Your task to perform on an android device: What's the latest news in space? Image 0: 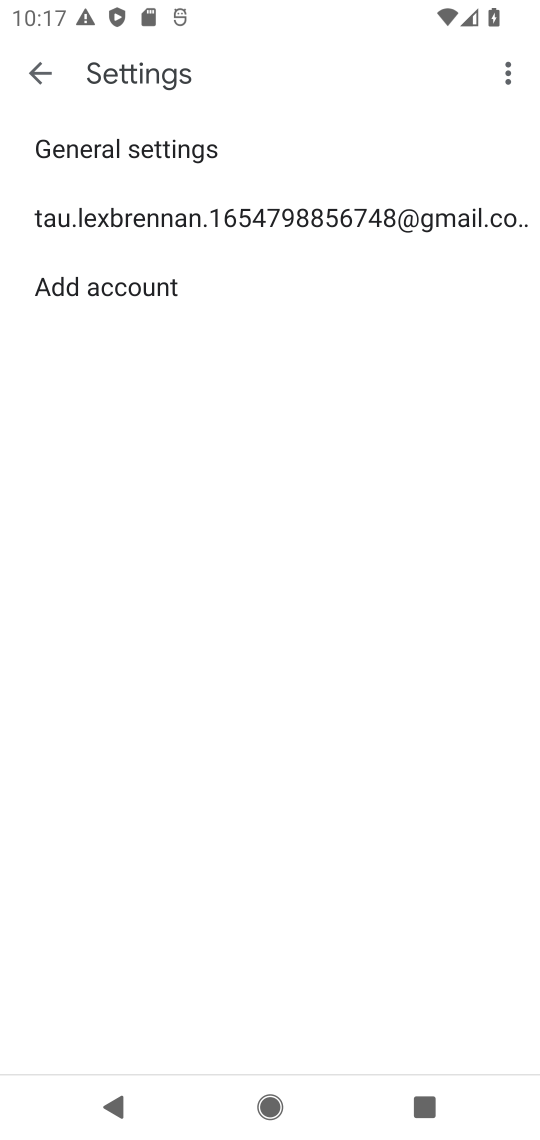
Step 0: press home button
Your task to perform on an android device: What's the latest news in space? Image 1: 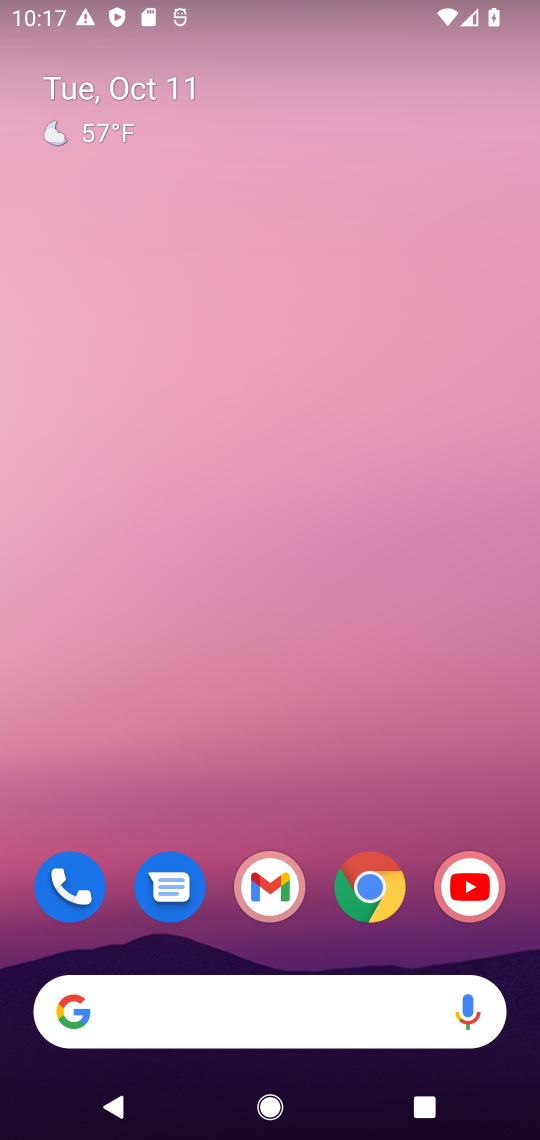
Step 1: click (235, 1016)
Your task to perform on an android device: What's the latest news in space? Image 2: 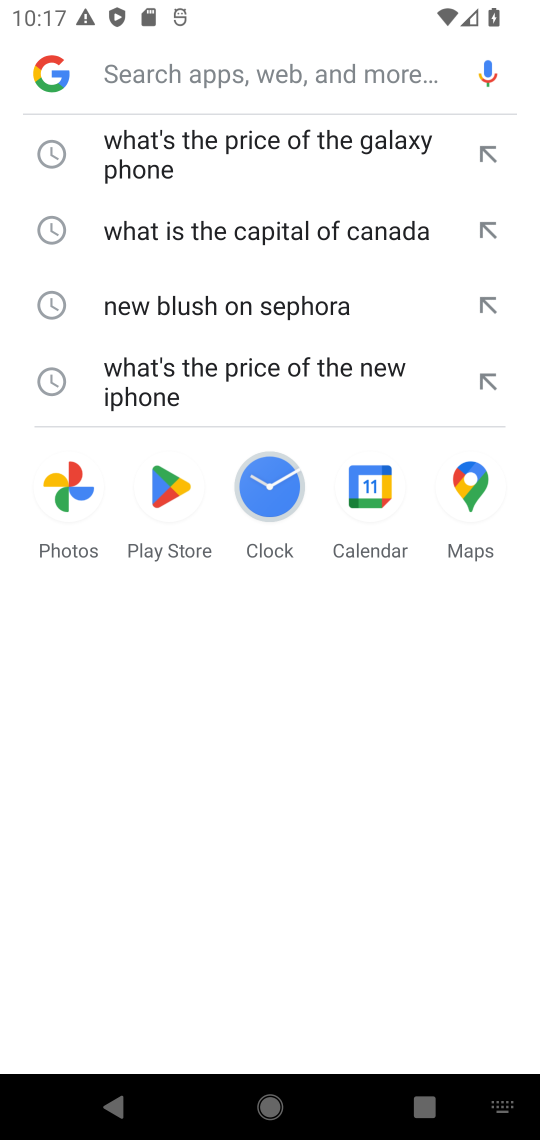
Step 2: type "What's the latest news in space"
Your task to perform on an android device: What's the latest news in space? Image 3: 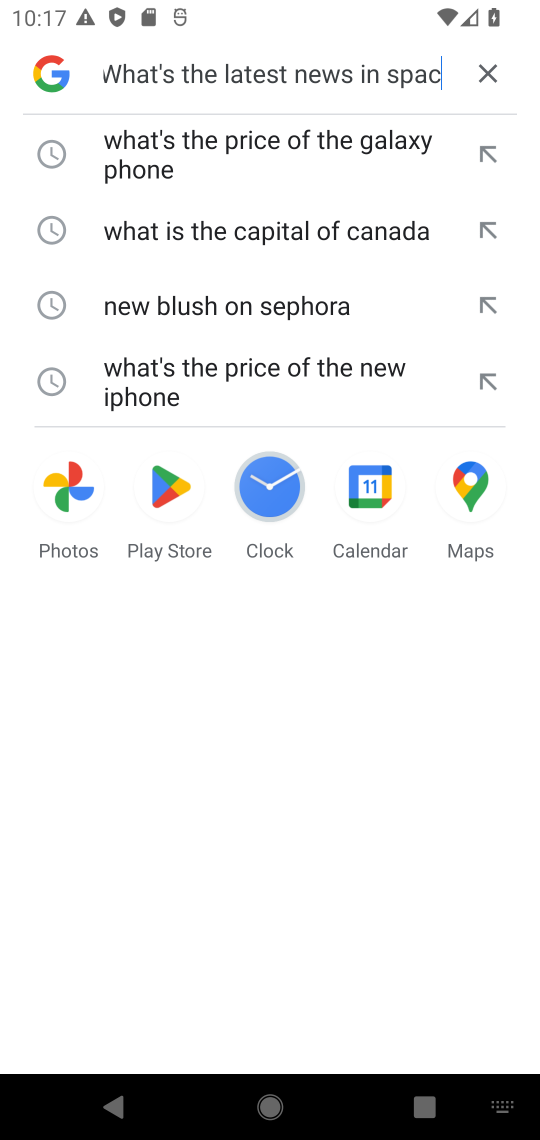
Step 3: press enter
Your task to perform on an android device: What's the latest news in space? Image 4: 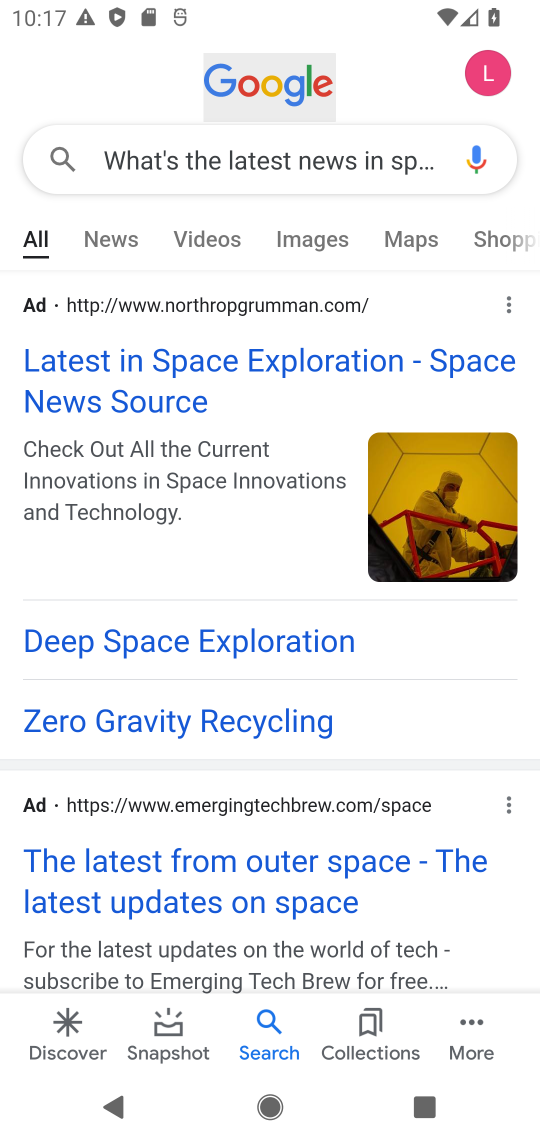
Step 4: click (239, 368)
Your task to perform on an android device: What's the latest news in space? Image 5: 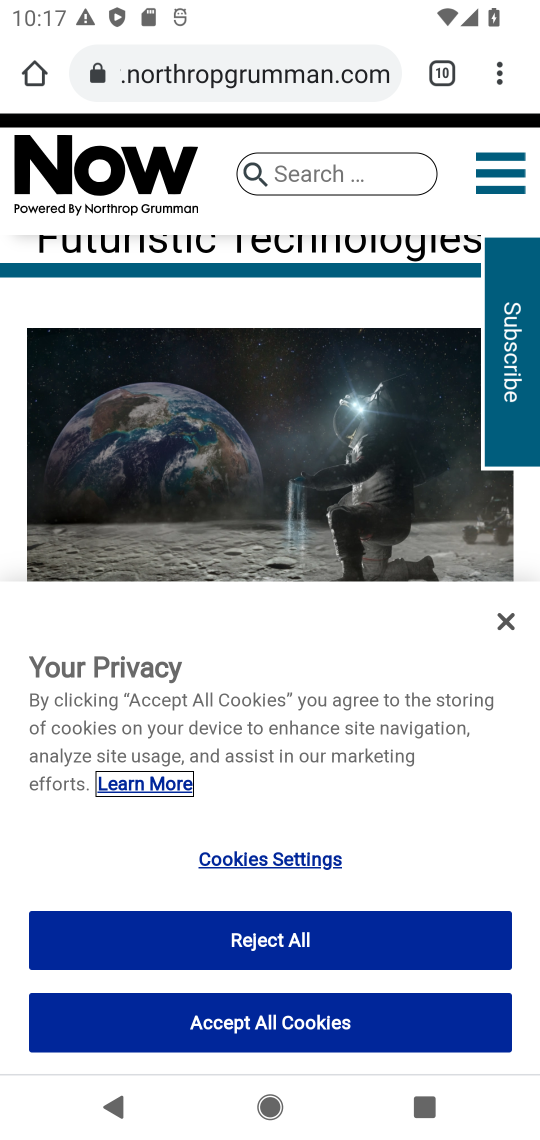
Step 5: click (267, 1025)
Your task to perform on an android device: What's the latest news in space? Image 6: 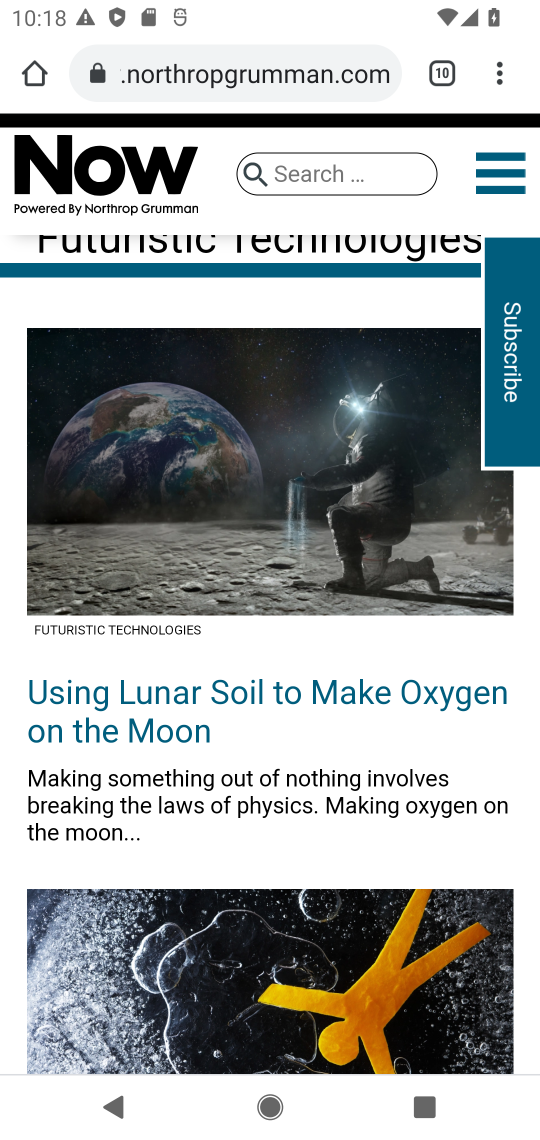
Step 6: drag from (346, 893) to (373, 585)
Your task to perform on an android device: What's the latest news in space? Image 7: 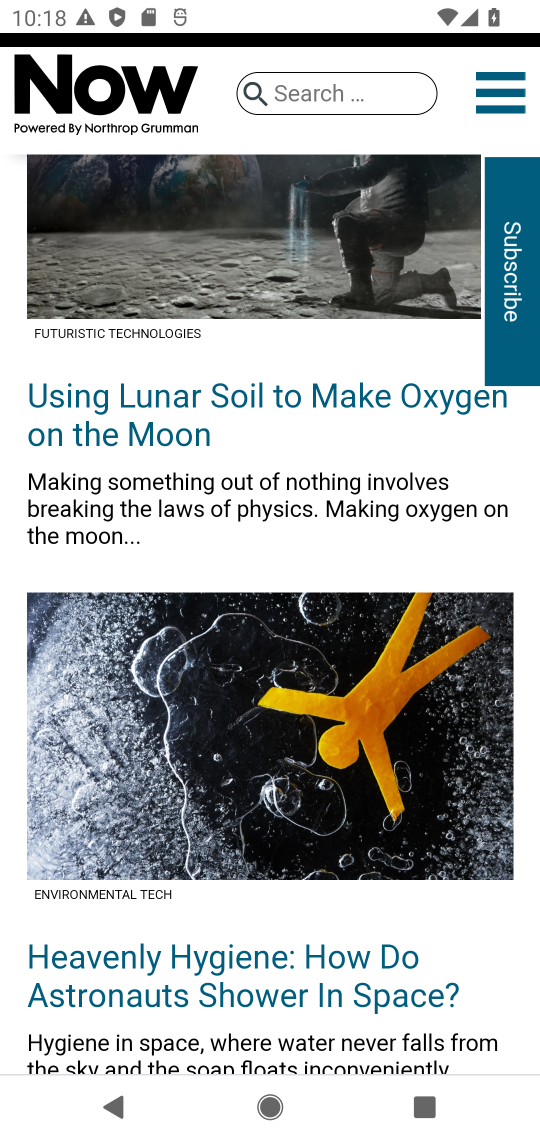
Step 7: drag from (320, 874) to (327, 624)
Your task to perform on an android device: What's the latest news in space? Image 8: 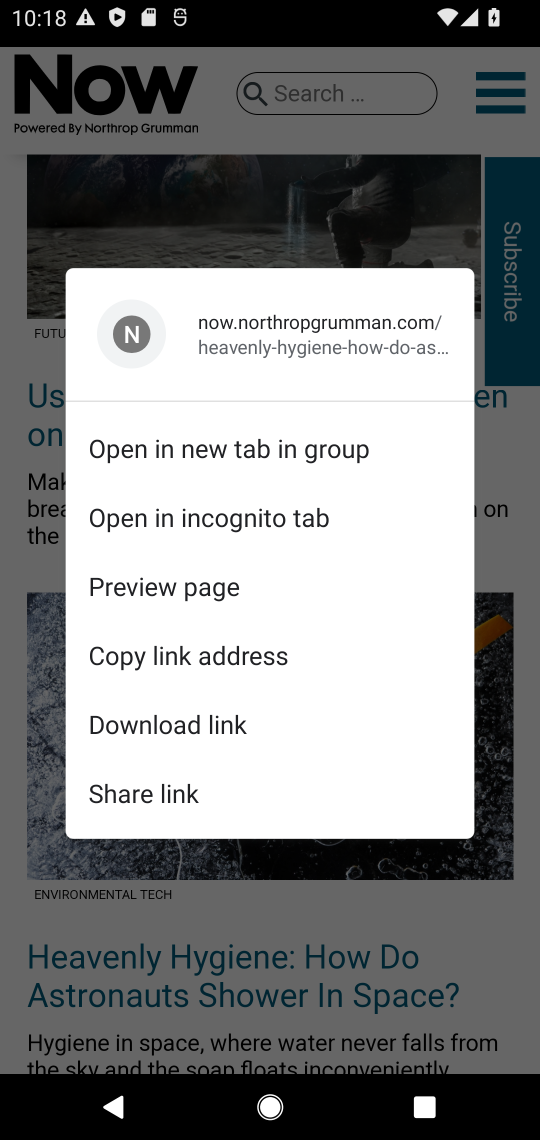
Step 8: click (531, 765)
Your task to perform on an android device: What's the latest news in space? Image 9: 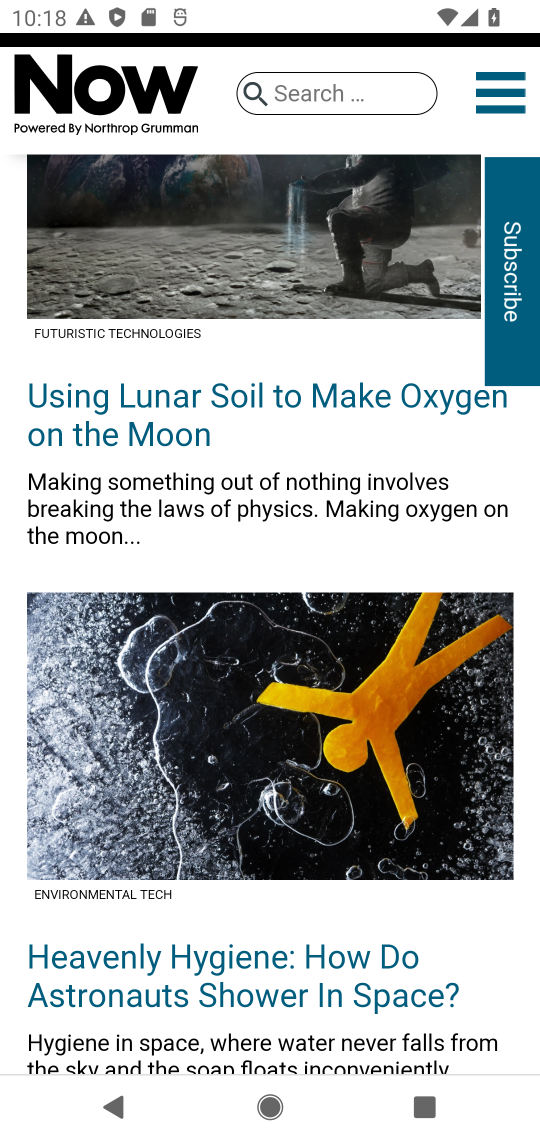
Step 9: task complete